Your task to perform on an android device: Open Google Chrome and open the bookmarks view Image 0: 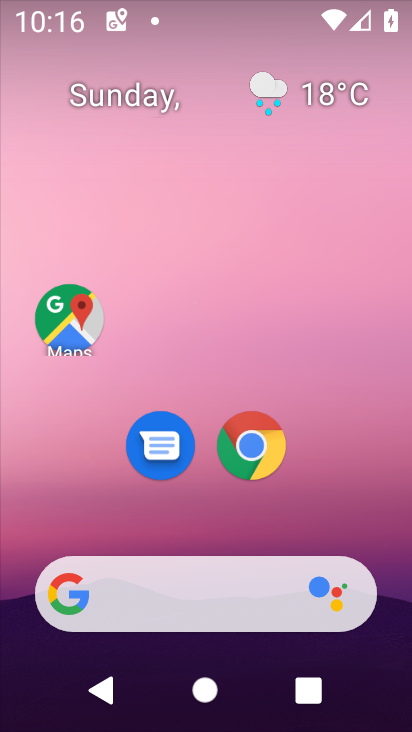
Step 0: click (250, 453)
Your task to perform on an android device: Open Google Chrome and open the bookmarks view Image 1: 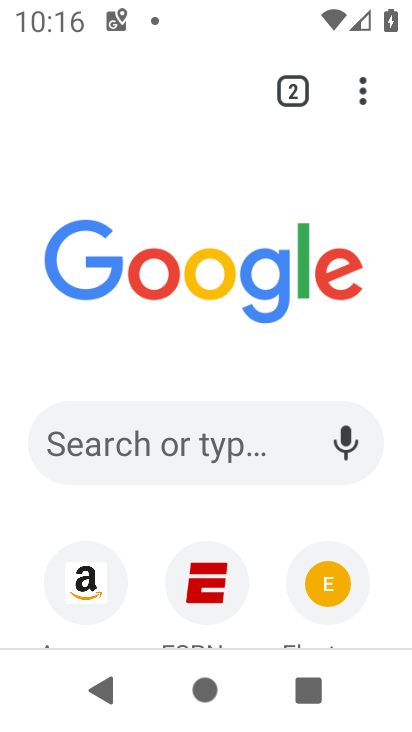
Step 1: click (363, 83)
Your task to perform on an android device: Open Google Chrome and open the bookmarks view Image 2: 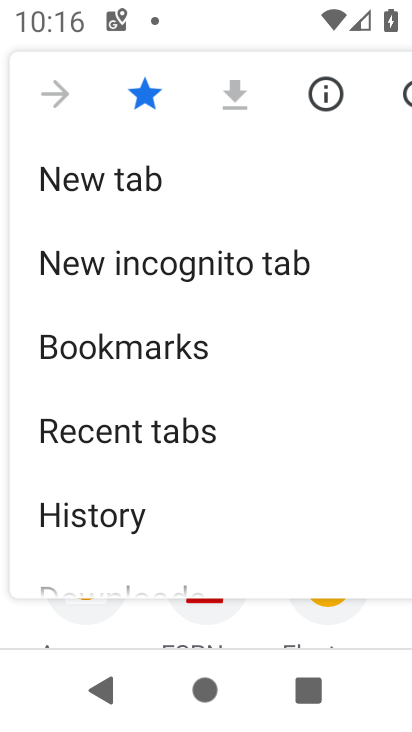
Step 2: click (227, 343)
Your task to perform on an android device: Open Google Chrome and open the bookmarks view Image 3: 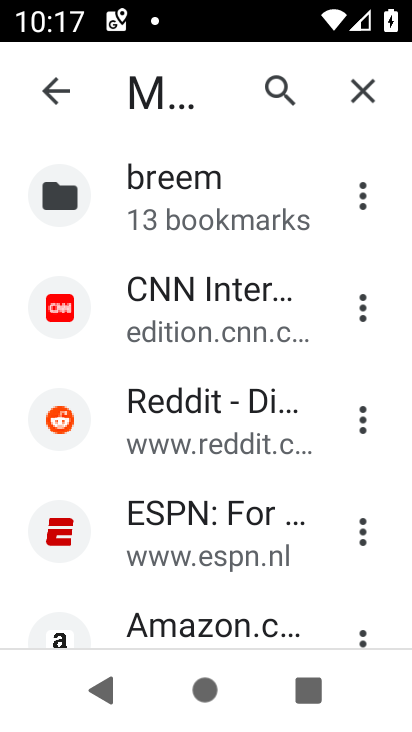
Step 3: click (221, 401)
Your task to perform on an android device: Open Google Chrome and open the bookmarks view Image 4: 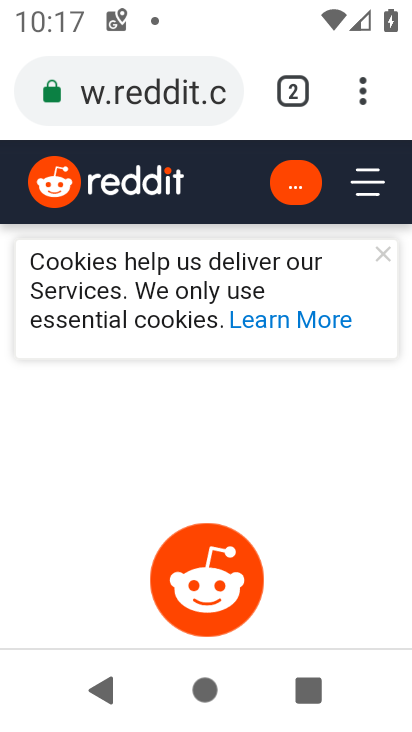
Step 4: task complete